Your task to perform on an android device: What is the news today? Image 0: 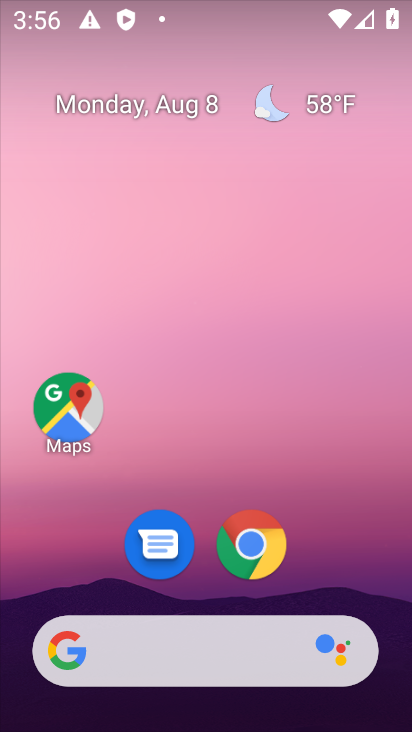
Step 0: drag from (248, 531) to (167, 2)
Your task to perform on an android device: What is the news today? Image 1: 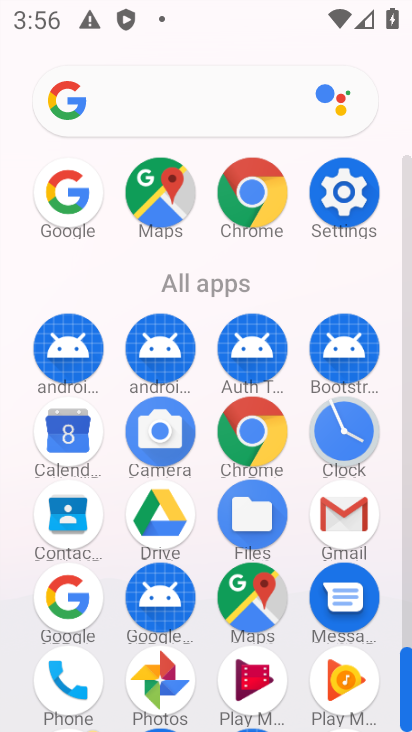
Step 1: drag from (181, 568) to (231, 69)
Your task to perform on an android device: What is the news today? Image 2: 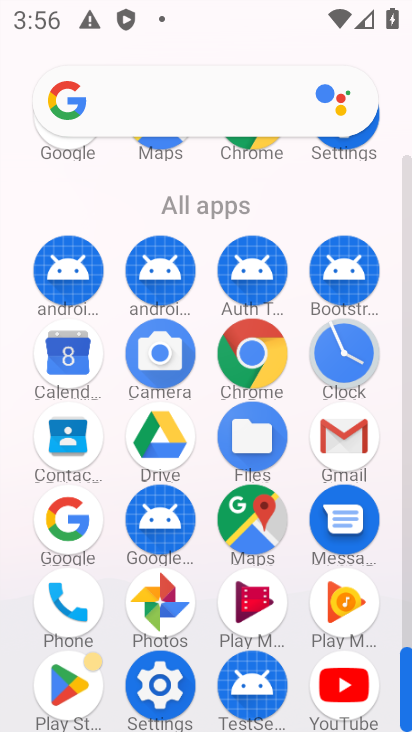
Step 2: drag from (295, 484) to (294, 254)
Your task to perform on an android device: What is the news today? Image 3: 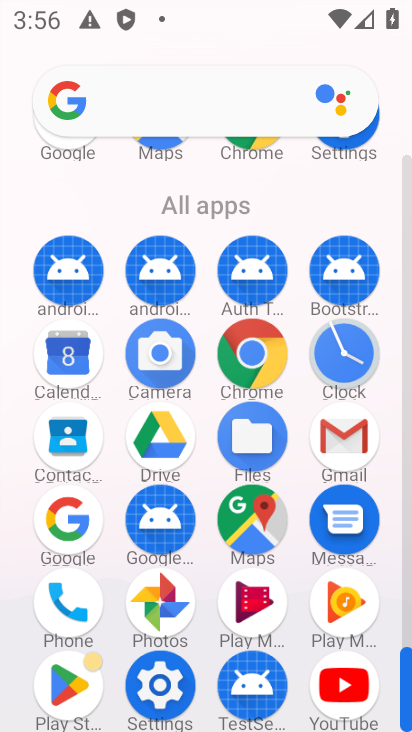
Step 3: click (74, 522)
Your task to perform on an android device: What is the news today? Image 4: 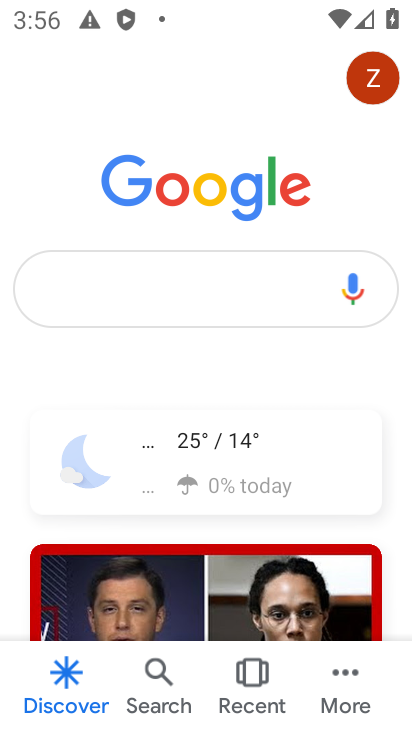
Step 4: click (190, 288)
Your task to perform on an android device: What is the news today? Image 5: 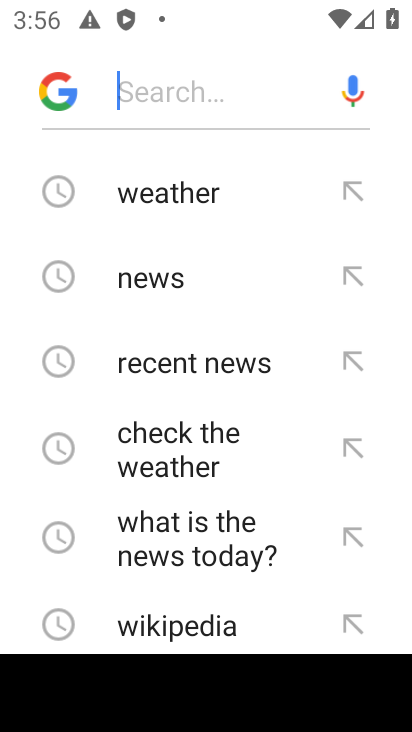
Step 5: click (190, 281)
Your task to perform on an android device: What is the news today? Image 6: 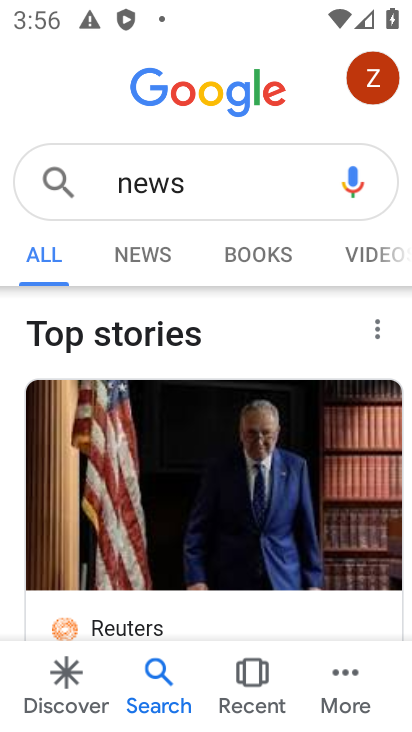
Step 6: task complete